Your task to perform on an android device: set default search engine in the chrome app Image 0: 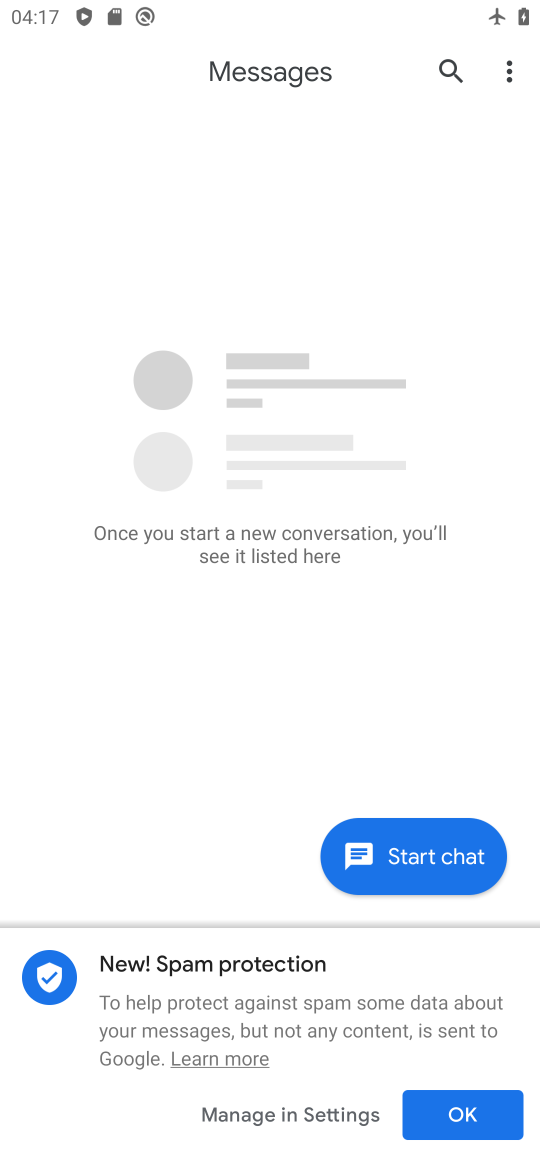
Step 0: task complete